Your task to perform on an android device: turn pop-ups off in chrome Image 0: 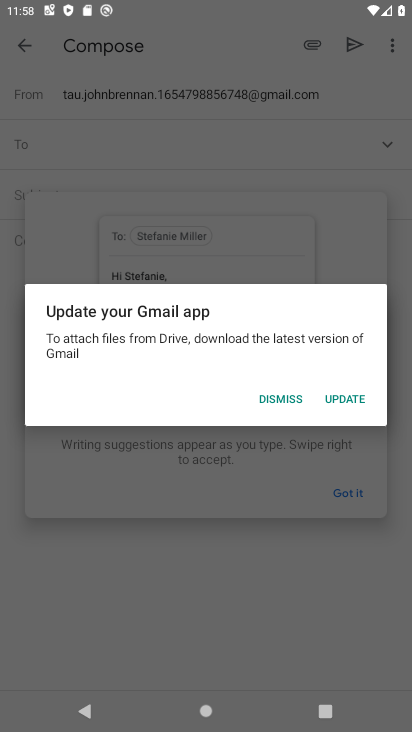
Step 0: press home button
Your task to perform on an android device: turn pop-ups off in chrome Image 1: 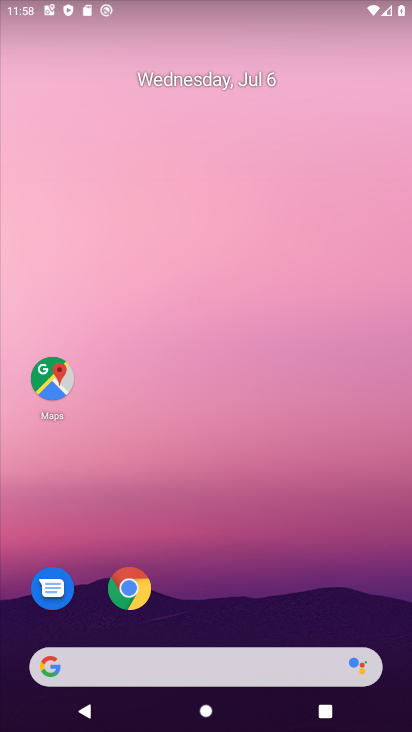
Step 1: click (128, 586)
Your task to perform on an android device: turn pop-ups off in chrome Image 2: 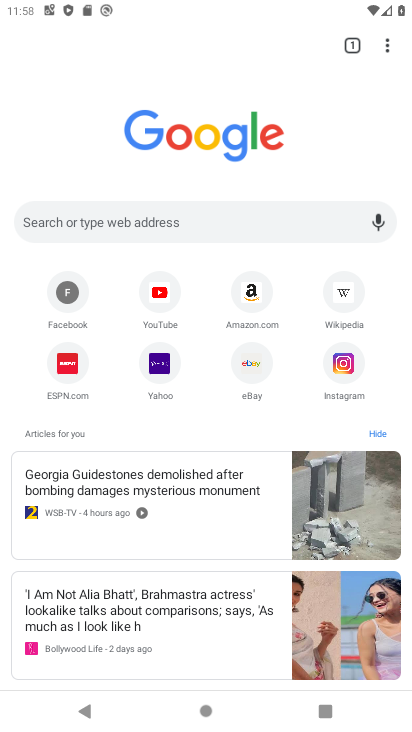
Step 2: click (387, 48)
Your task to perform on an android device: turn pop-ups off in chrome Image 3: 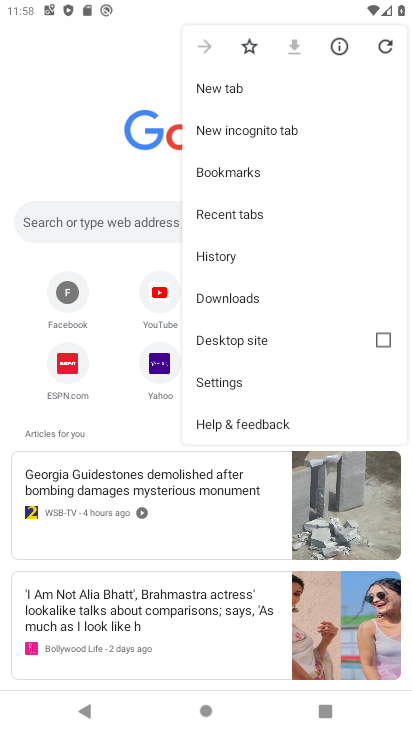
Step 3: click (218, 376)
Your task to perform on an android device: turn pop-ups off in chrome Image 4: 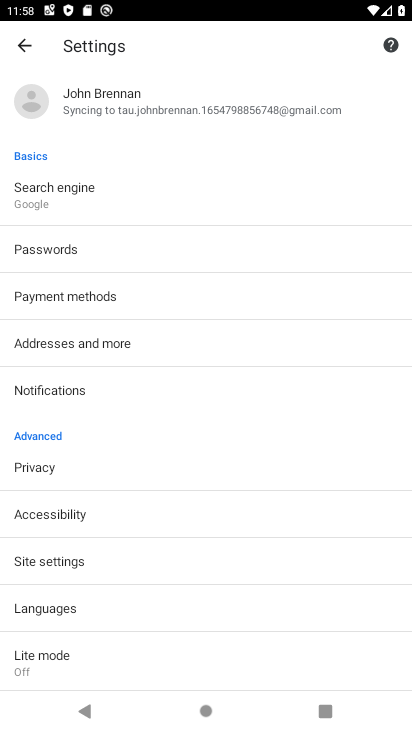
Step 4: click (58, 556)
Your task to perform on an android device: turn pop-ups off in chrome Image 5: 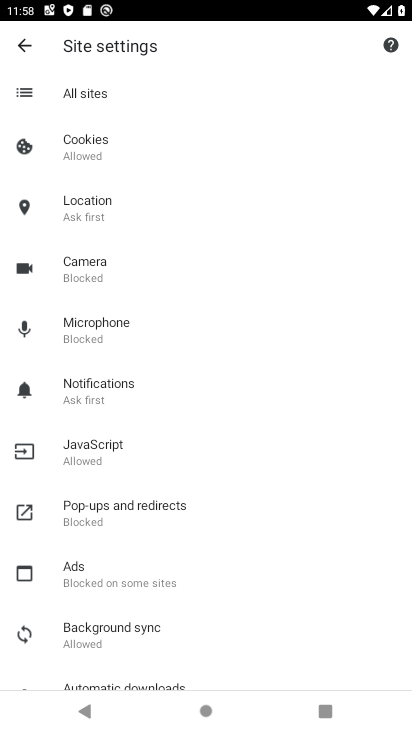
Step 5: click (107, 505)
Your task to perform on an android device: turn pop-ups off in chrome Image 6: 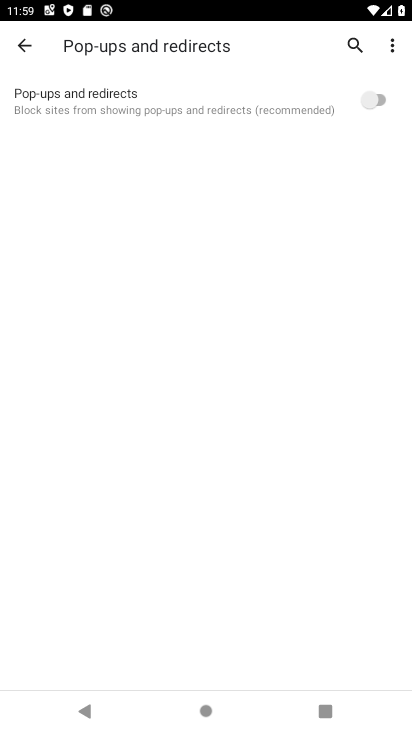
Step 6: task complete